Your task to perform on an android device: turn on airplane mode Image 0: 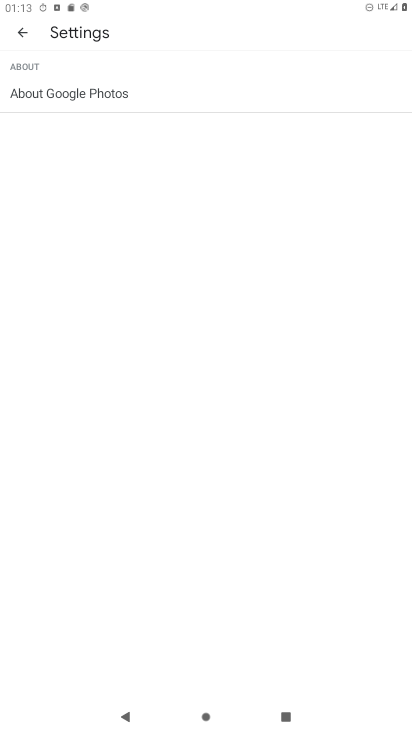
Step 0: press home button
Your task to perform on an android device: turn on airplane mode Image 1: 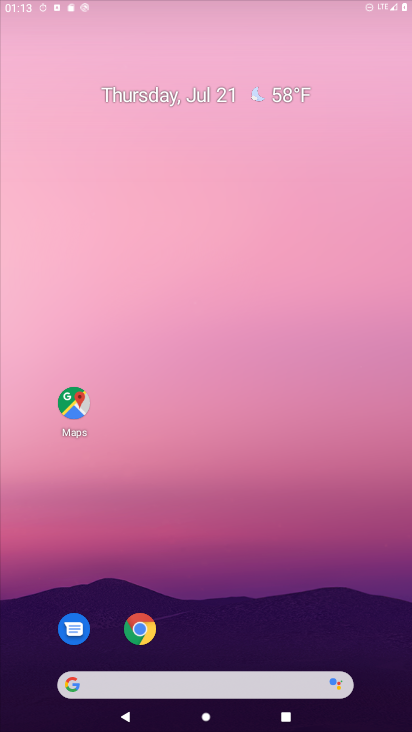
Step 1: drag from (254, 587) to (263, 125)
Your task to perform on an android device: turn on airplane mode Image 2: 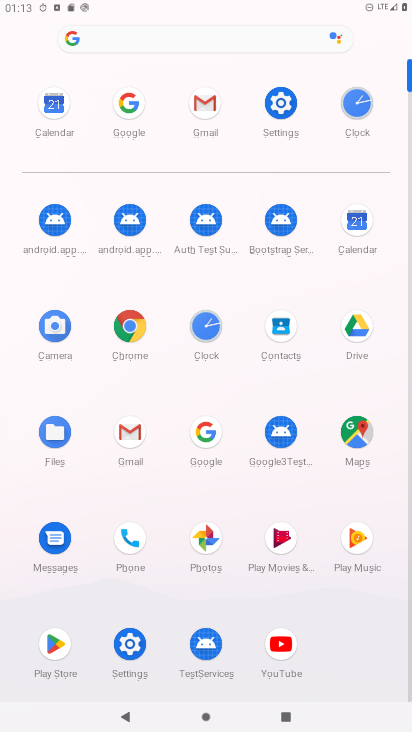
Step 2: click (263, 124)
Your task to perform on an android device: turn on airplane mode Image 3: 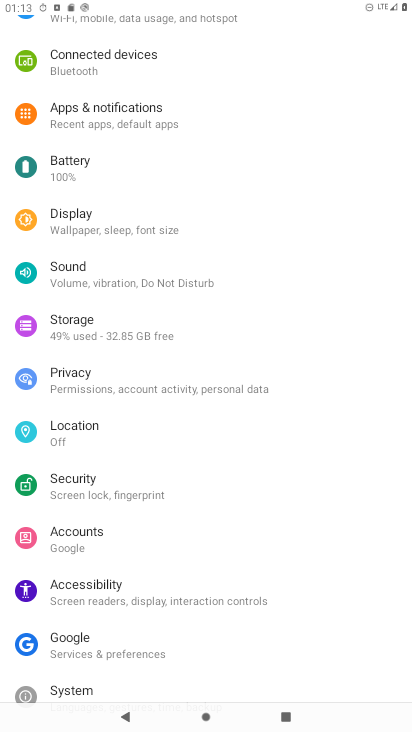
Step 3: drag from (132, 87) to (134, 511)
Your task to perform on an android device: turn on airplane mode Image 4: 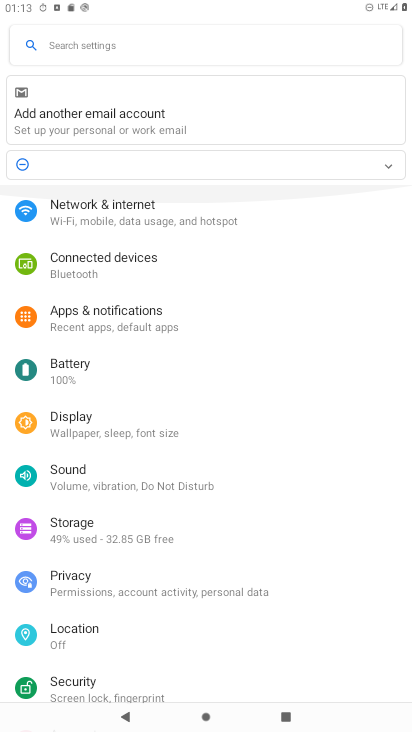
Step 4: click (100, 201)
Your task to perform on an android device: turn on airplane mode Image 5: 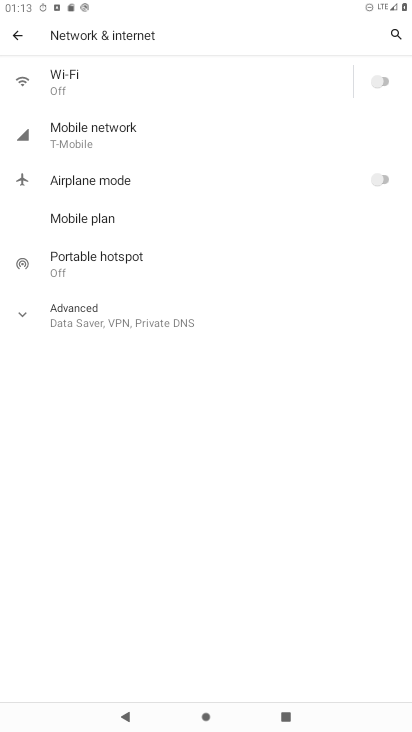
Step 5: click (388, 181)
Your task to perform on an android device: turn on airplane mode Image 6: 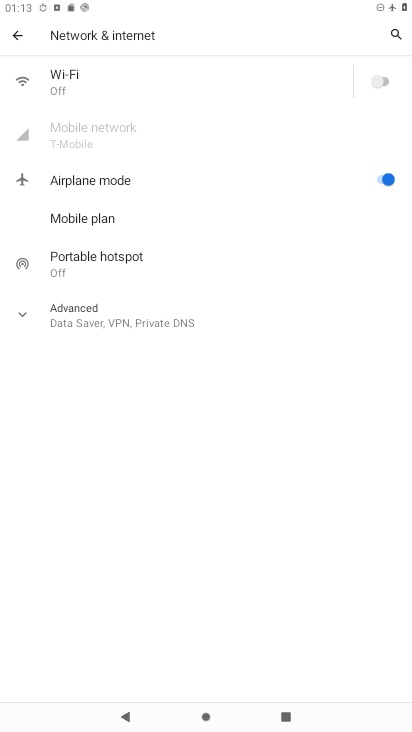
Step 6: task complete